Your task to perform on an android device: move an email to a new category in the gmail app Image 0: 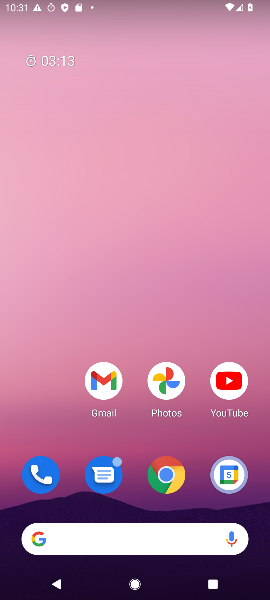
Step 0: drag from (141, 298) to (167, 53)
Your task to perform on an android device: move an email to a new category in the gmail app Image 1: 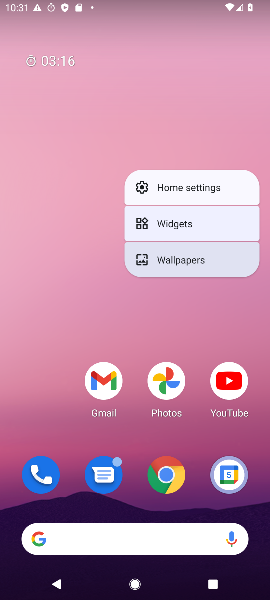
Step 1: drag from (126, 459) to (142, 18)
Your task to perform on an android device: move an email to a new category in the gmail app Image 2: 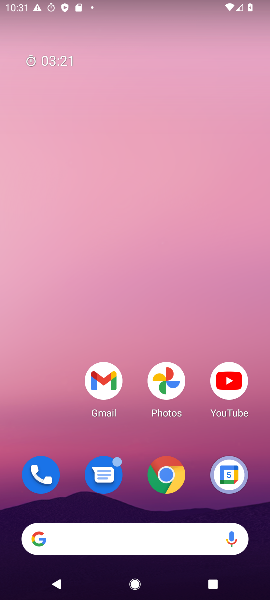
Step 2: click (113, 392)
Your task to perform on an android device: move an email to a new category in the gmail app Image 3: 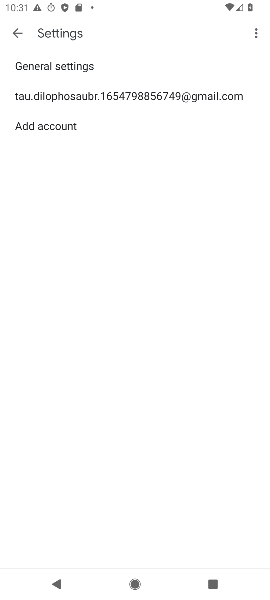
Step 3: click (11, 34)
Your task to perform on an android device: move an email to a new category in the gmail app Image 4: 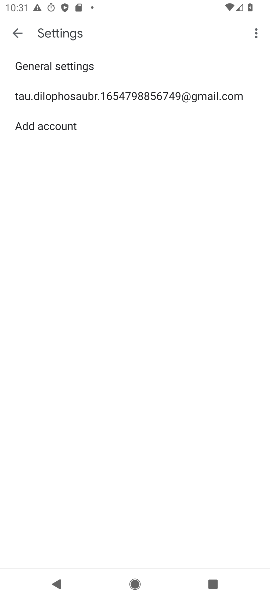
Step 4: click (12, 33)
Your task to perform on an android device: move an email to a new category in the gmail app Image 5: 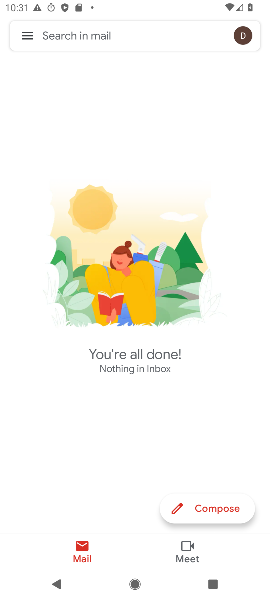
Step 5: task complete